Your task to perform on an android device: see tabs open on other devices in the chrome app Image 0: 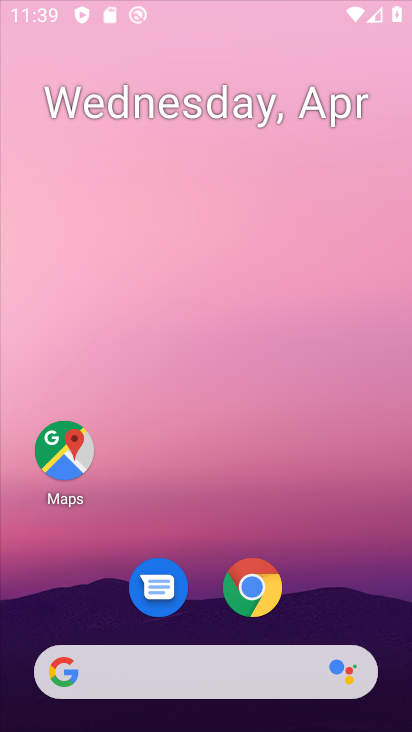
Step 0: click (279, 594)
Your task to perform on an android device: see tabs open on other devices in the chrome app Image 1: 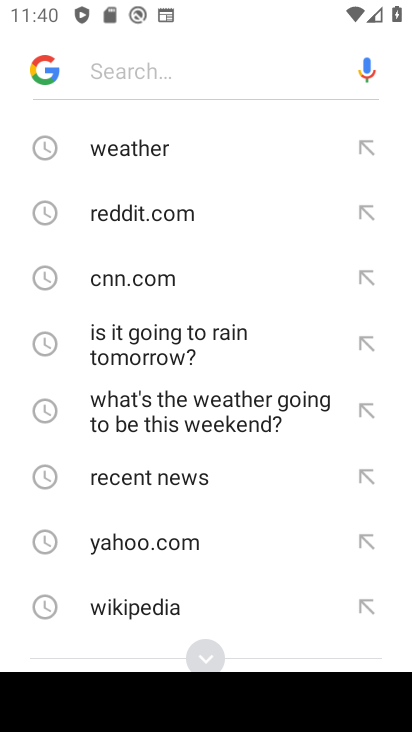
Step 1: press home button
Your task to perform on an android device: see tabs open on other devices in the chrome app Image 2: 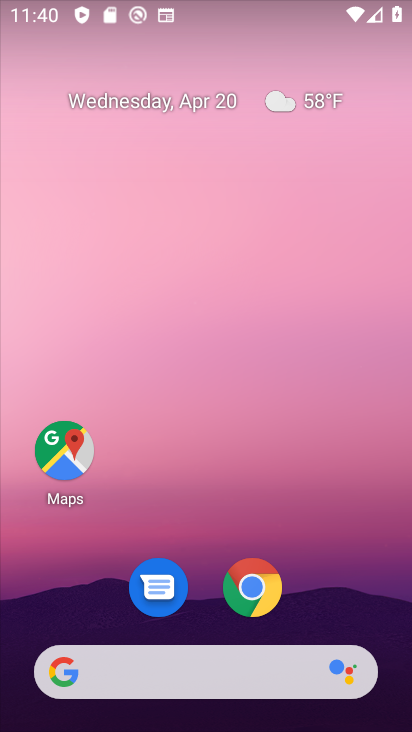
Step 2: click (264, 574)
Your task to perform on an android device: see tabs open on other devices in the chrome app Image 3: 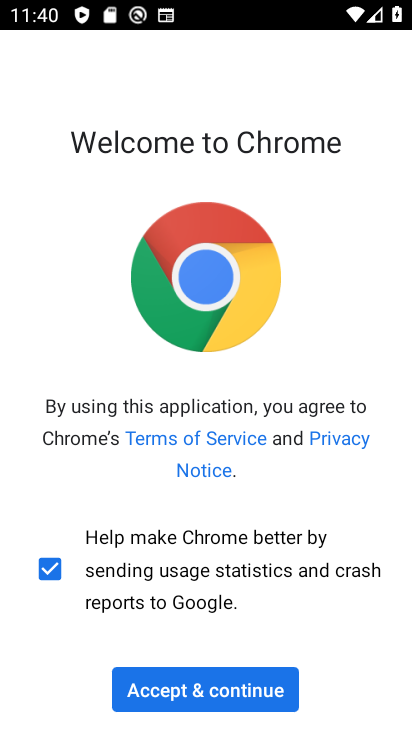
Step 3: click (238, 685)
Your task to perform on an android device: see tabs open on other devices in the chrome app Image 4: 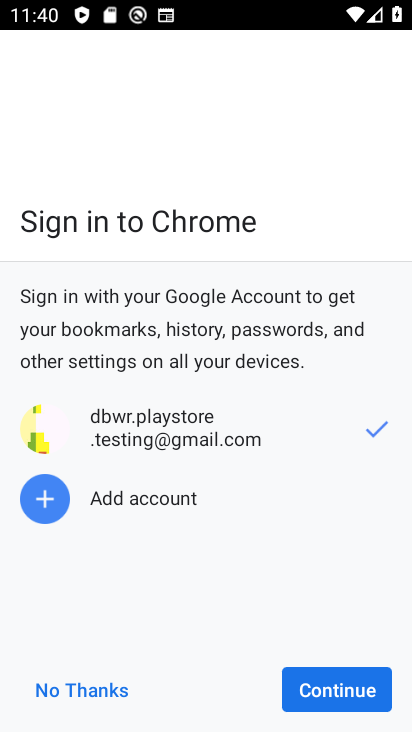
Step 4: click (348, 702)
Your task to perform on an android device: see tabs open on other devices in the chrome app Image 5: 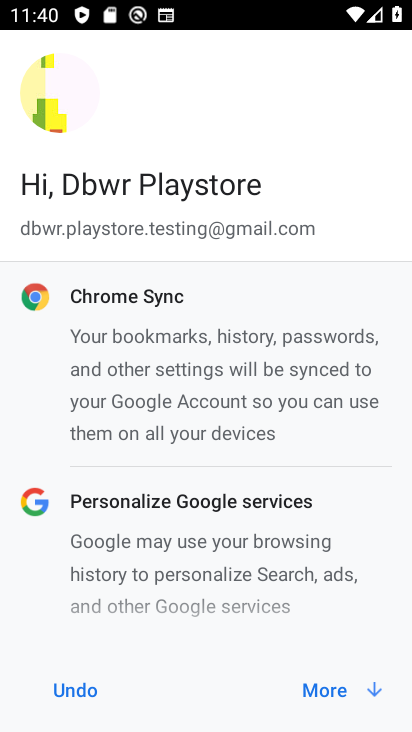
Step 5: click (348, 702)
Your task to perform on an android device: see tabs open on other devices in the chrome app Image 6: 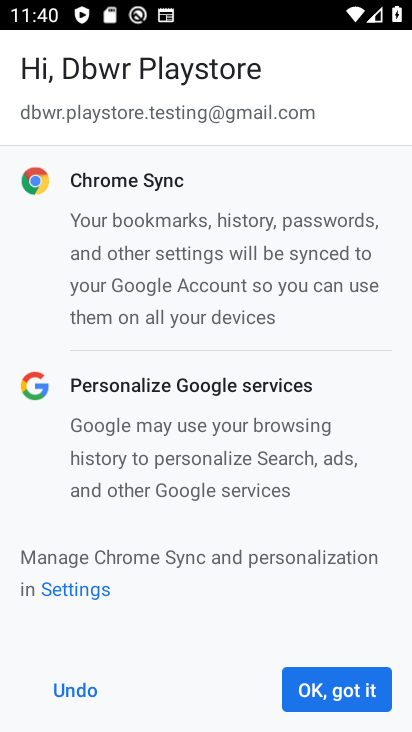
Step 6: click (348, 702)
Your task to perform on an android device: see tabs open on other devices in the chrome app Image 7: 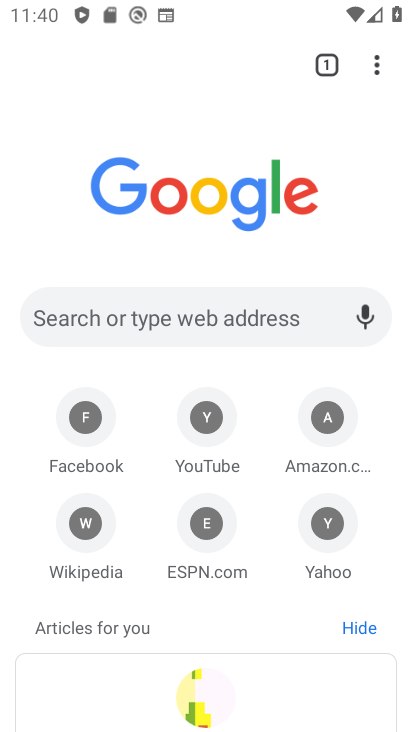
Step 7: click (371, 73)
Your task to perform on an android device: see tabs open on other devices in the chrome app Image 8: 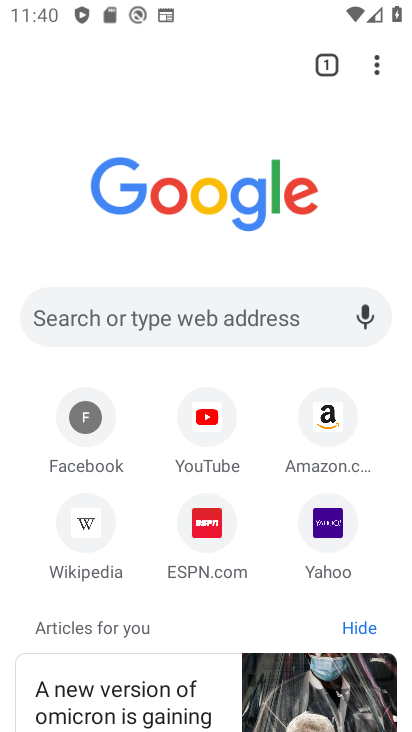
Step 8: click (380, 69)
Your task to perform on an android device: see tabs open on other devices in the chrome app Image 9: 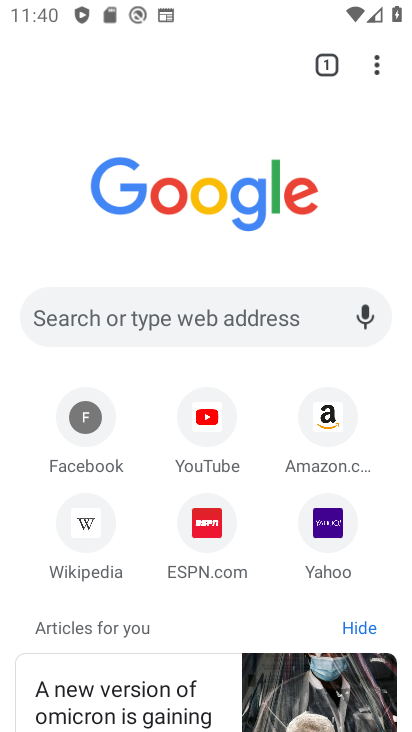
Step 9: click (373, 60)
Your task to perform on an android device: see tabs open on other devices in the chrome app Image 10: 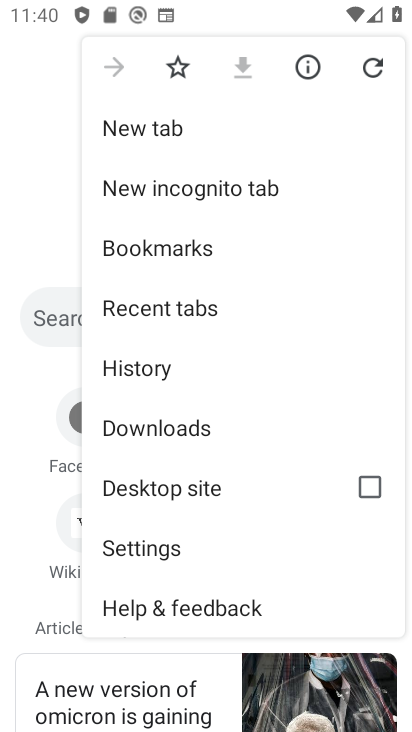
Step 10: click (165, 293)
Your task to perform on an android device: see tabs open on other devices in the chrome app Image 11: 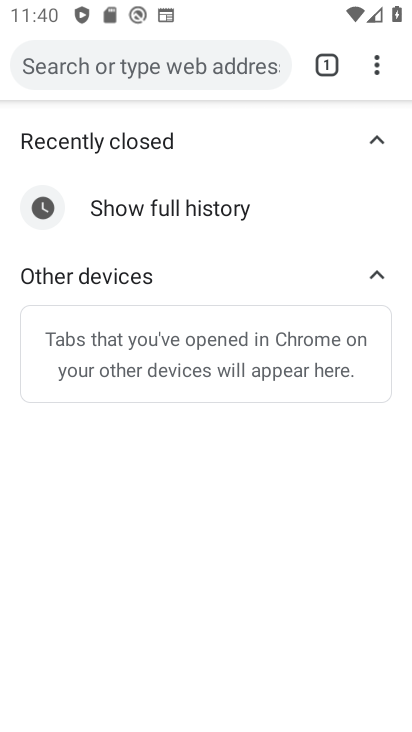
Step 11: click (165, 293)
Your task to perform on an android device: see tabs open on other devices in the chrome app Image 12: 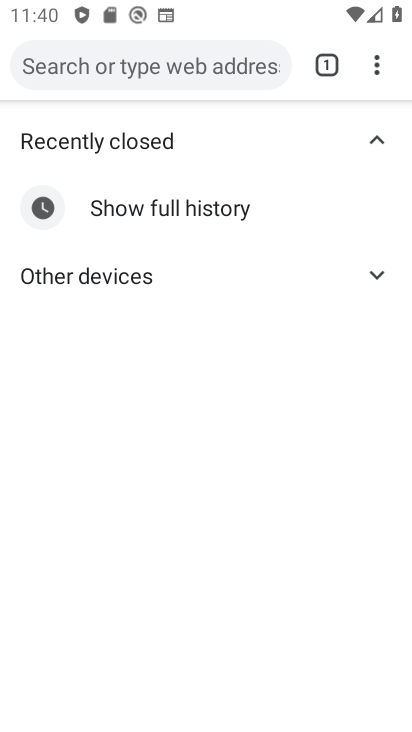
Step 12: task complete